Your task to perform on an android device: open the mobile data screen to see how much data has been used Image 0: 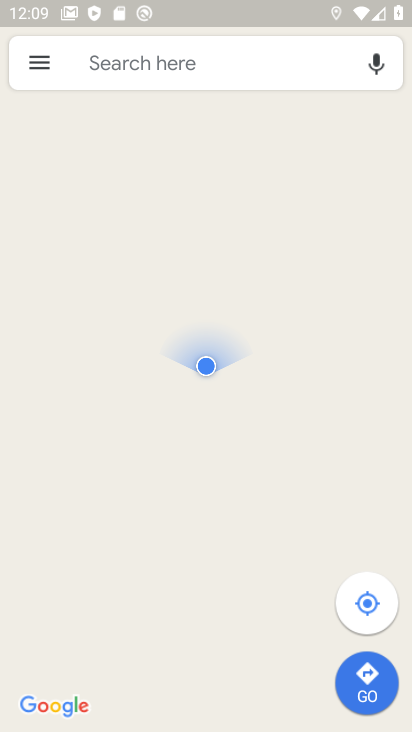
Step 0: press back button
Your task to perform on an android device: open the mobile data screen to see how much data has been used Image 1: 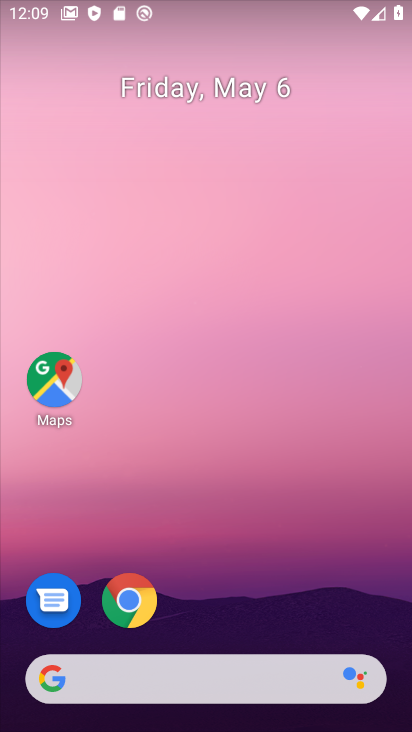
Step 1: drag from (173, 638) to (264, 144)
Your task to perform on an android device: open the mobile data screen to see how much data has been used Image 2: 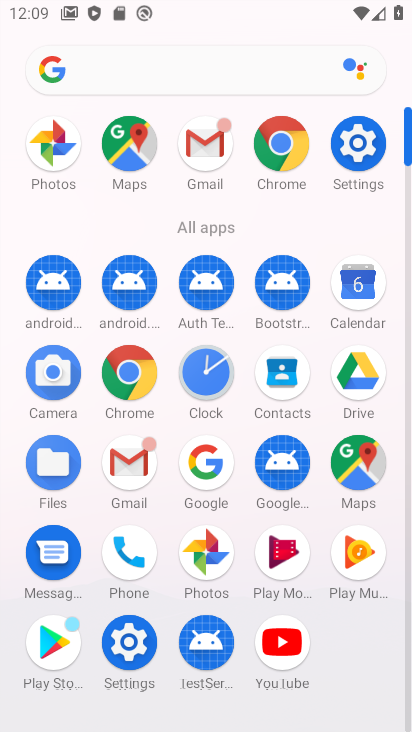
Step 2: click (129, 642)
Your task to perform on an android device: open the mobile data screen to see how much data has been used Image 3: 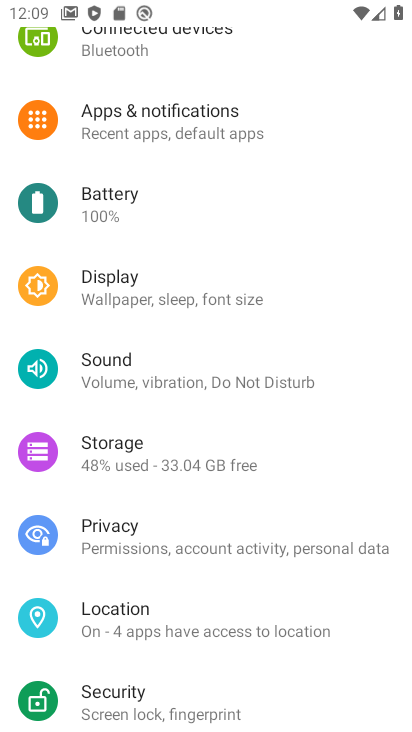
Step 3: drag from (184, 207) to (177, 419)
Your task to perform on an android device: open the mobile data screen to see how much data has been used Image 4: 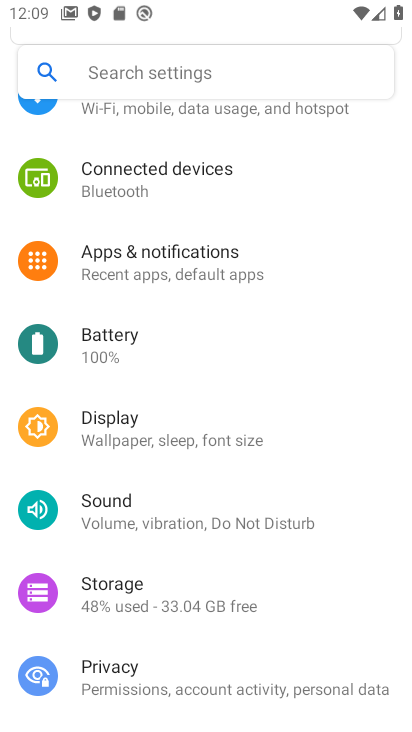
Step 4: drag from (170, 139) to (172, 458)
Your task to perform on an android device: open the mobile data screen to see how much data has been used Image 5: 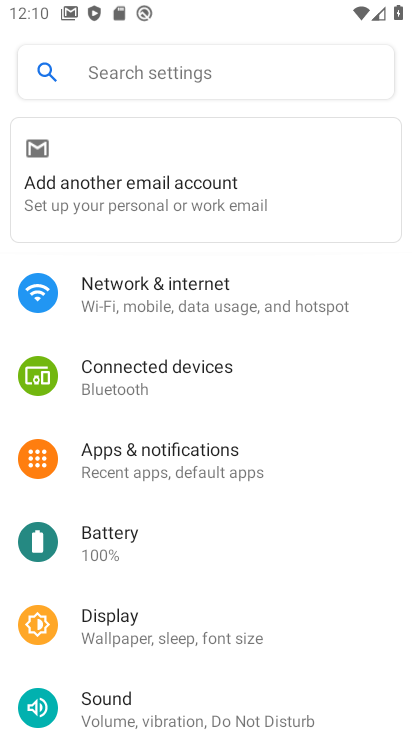
Step 5: click (168, 301)
Your task to perform on an android device: open the mobile data screen to see how much data has been used Image 6: 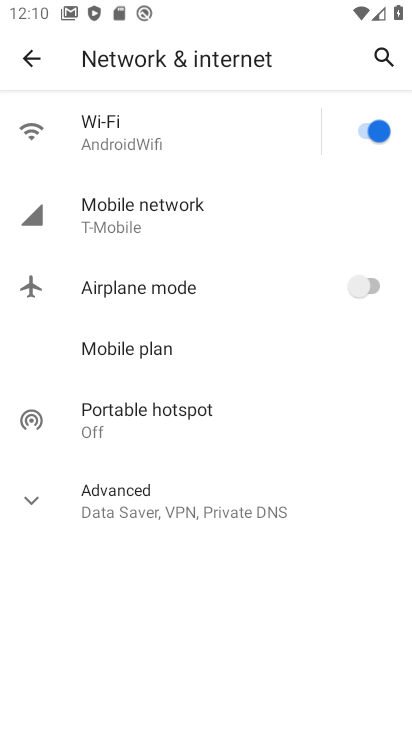
Step 6: click (153, 215)
Your task to perform on an android device: open the mobile data screen to see how much data has been used Image 7: 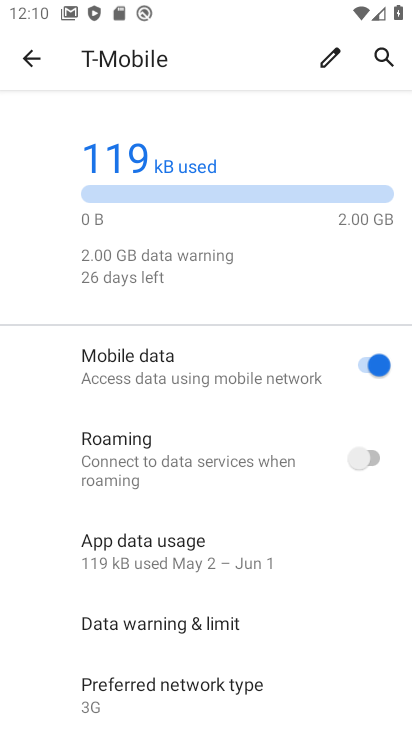
Step 7: drag from (183, 651) to (225, 474)
Your task to perform on an android device: open the mobile data screen to see how much data has been used Image 8: 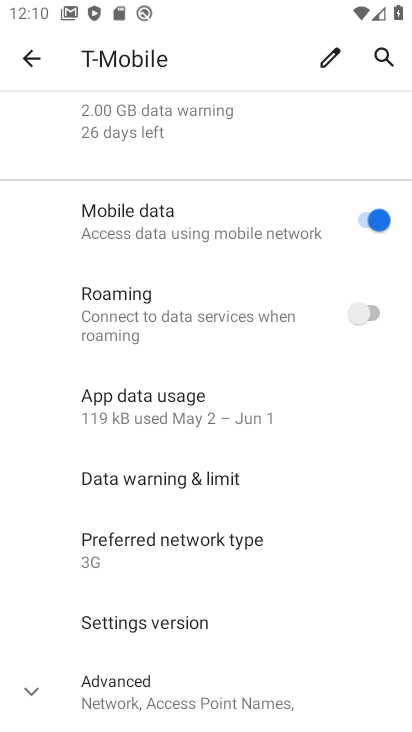
Step 8: click (209, 419)
Your task to perform on an android device: open the mobile data screen to see how much data has been used Image 9: 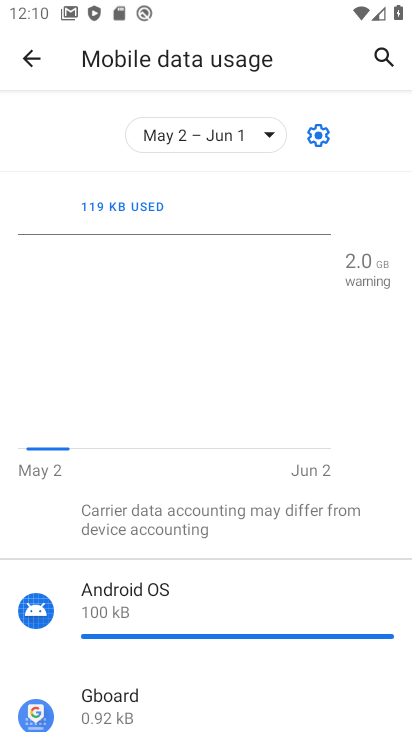
Step 9: task complete